Your task to perform on an android device: Is it going to rain today? Image 0: 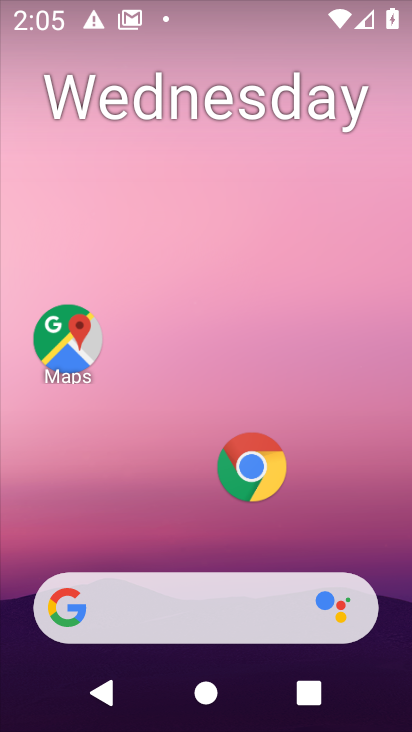
Step 0: click (337, 296)
Your task to perform on an android device: Is it going to rain today? Image 1: 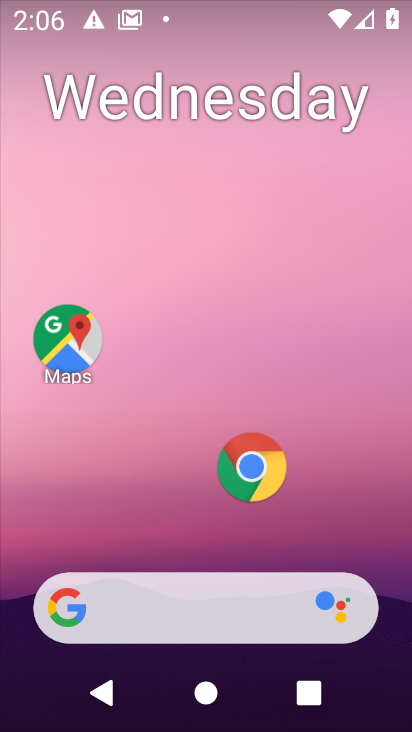
Step 1: click (208, 630)
Your task to perform on an android device: Is it going to rain today? Image 2: 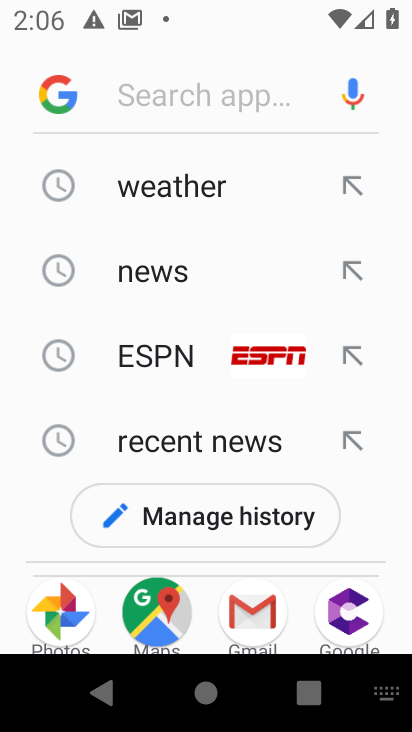
Step 2: type "Is it going to rain today?"
Your task to perform on an android device: Is it going to rain today? Image 3: 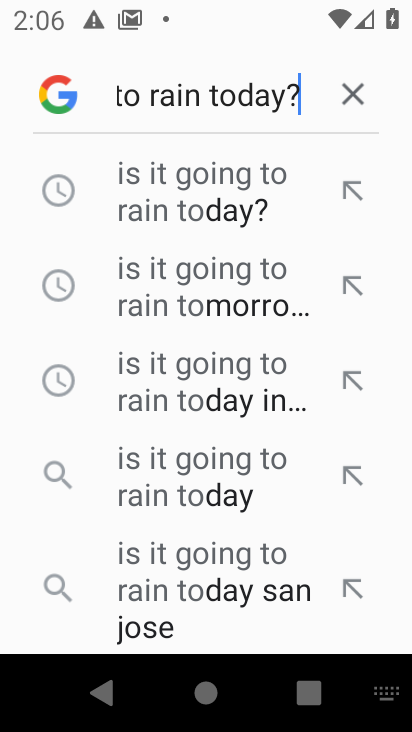
Step 3: press enter
Your task to perform on an android device: Is it going to rain today? Image 4: 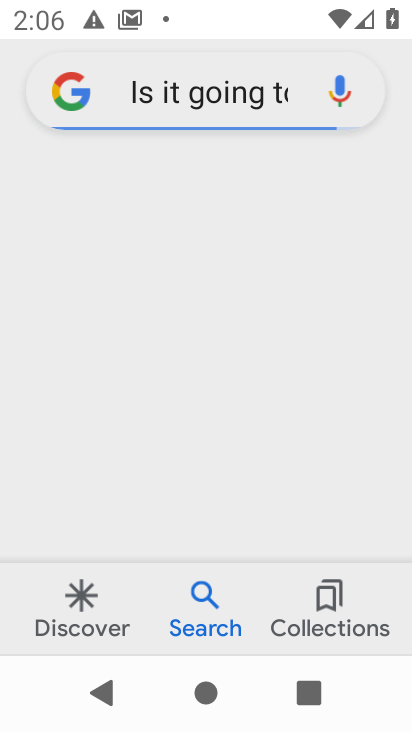
Step 4: task complete